Your task to perform on an android device: delete browsing data in the chrome app Image 0: 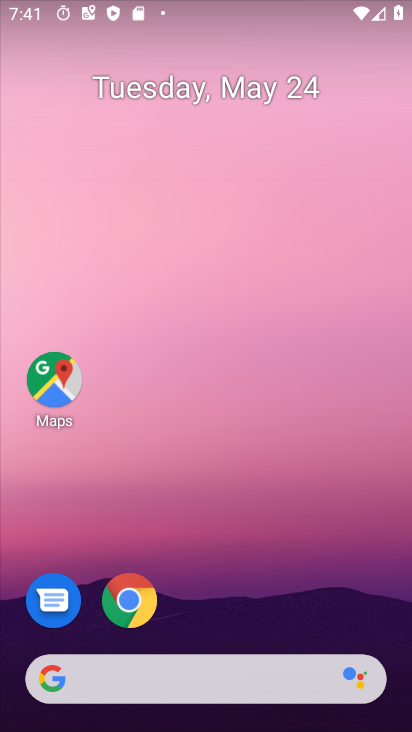
Step 0: click (122, 596)
Your task to perform on an android device: delete browsing data in the chrome app Image 1: 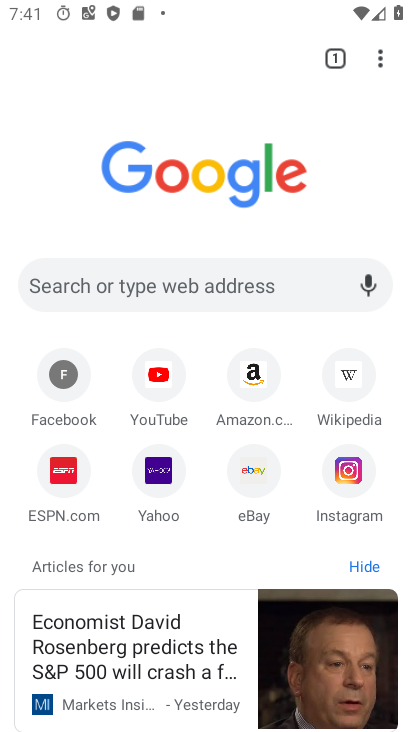
Step 1: drag from (379, 51) to (176, 337)
Your task to perform on an android device: delete browsing data in the chrome app Image 2: 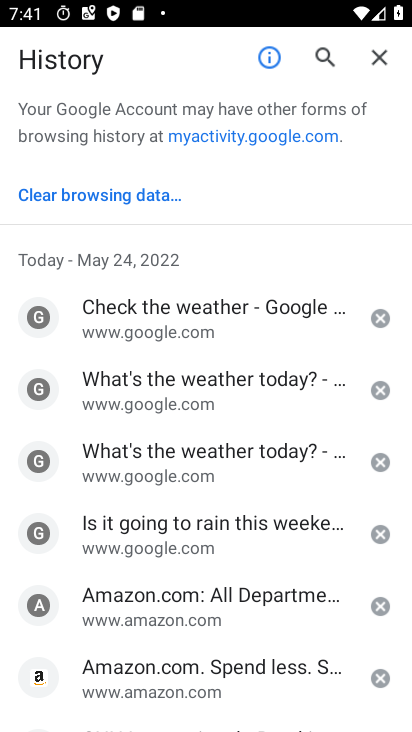
Step 2: click (126, 195)
Your task to perform on an android device: delete browsing data in the chrome app Image 3: 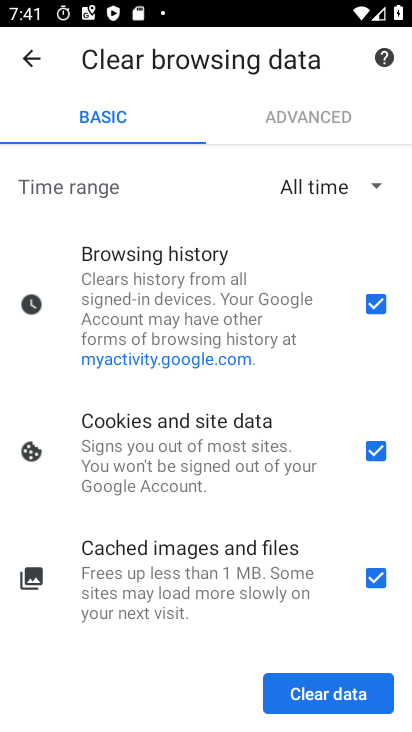
Step 3: click (354, 689)
Your task to perform on an android device: delete browsing data in the chrome app Image 4: 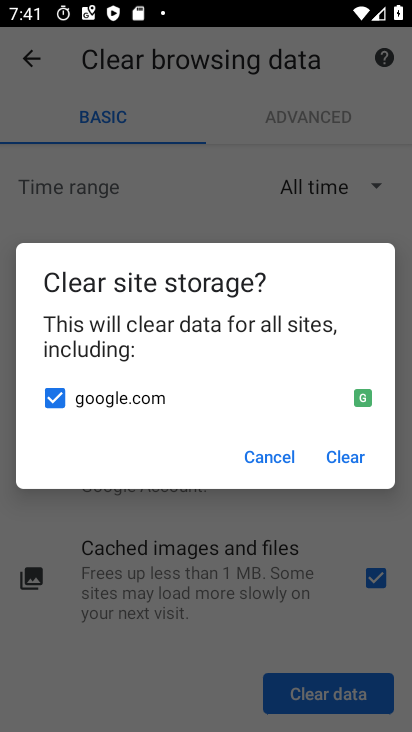
Step 4: click (343, 450)
Your task to perform on an android device: delete browsing data in the chrome app Image 5: 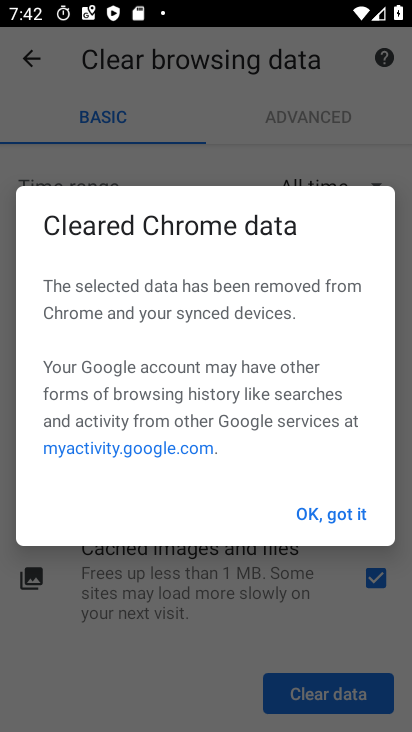
Step 5: click (312, 514)
Your task to perform on an android device: delete browsing data in the chrome app Image 6: 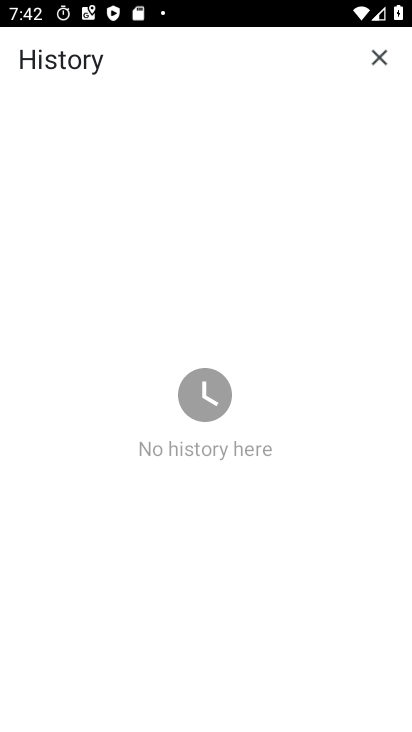
Step 6: task complete